Your task to perform on an android device: read, delete, or share a saved page in the chrome app Image 0: 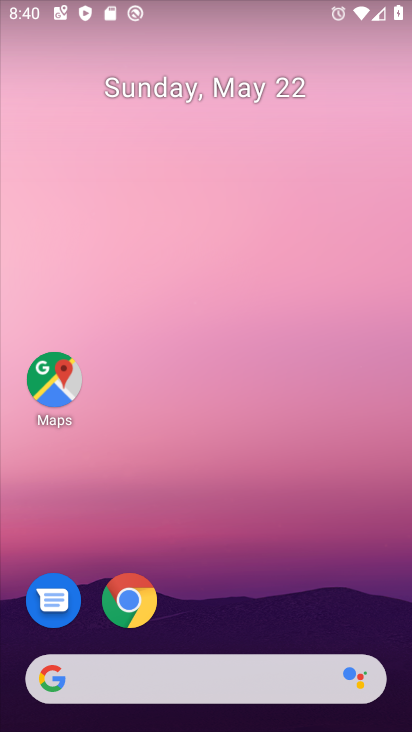
Step 0: drag from (266, 588) to (299, 104)
Your task to perform on an android device: read, delete, or share a saved page in the chrome app Image 1: 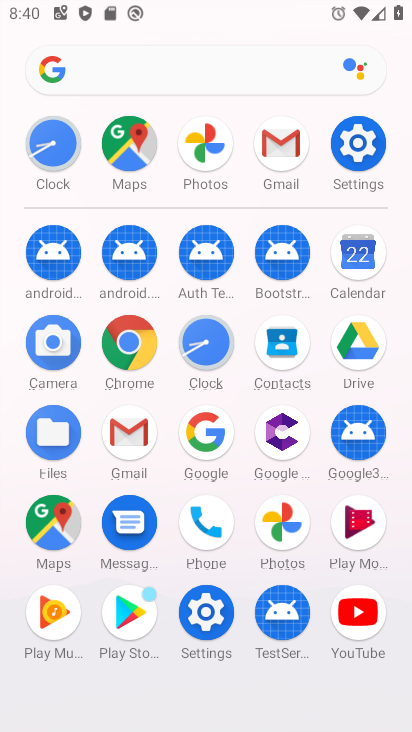
Step 1: click (147, 366)
Your task to perform on an android device: read, delete, or share a saved page in the chrome app Image 2: 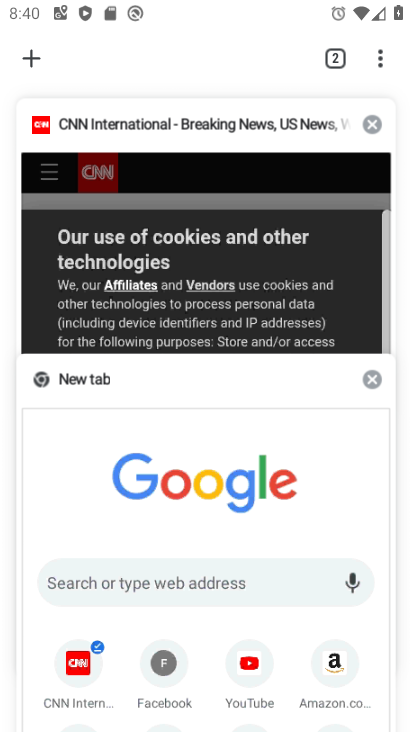
Step 2: click (235, 462)
Your task to perform on an android device: read, delete, or share a saved page in the chrome app Image 3: 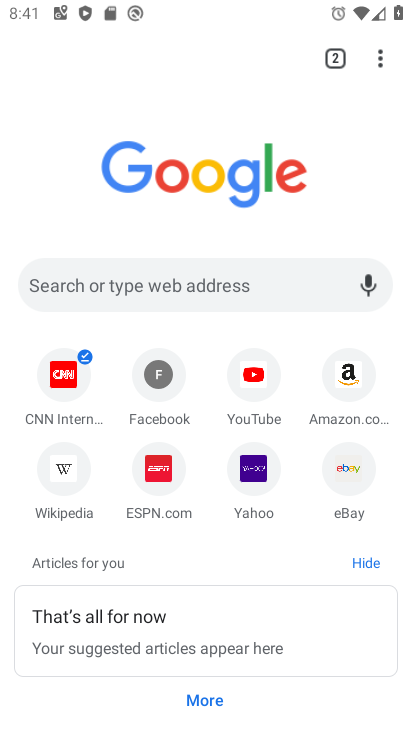
Step 3: click (388, 61)
Your task to perform on an android device: read, delete, or share a saved page in the chrome app Image 4: 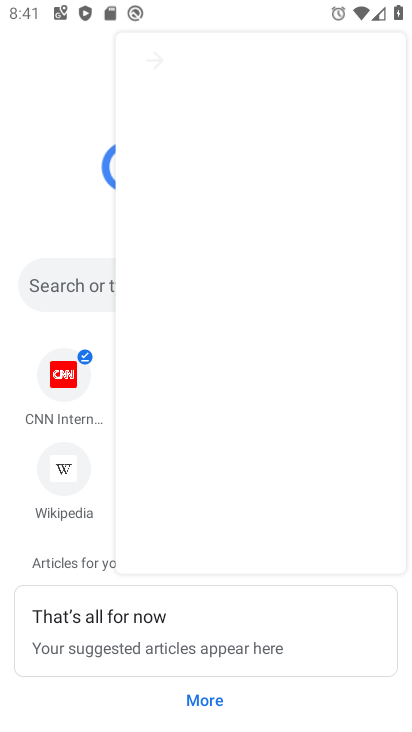
Step 4: click (388, 61)
Your task to perform on an android device: read, delete, or share a saved page in the chrome app Image 5: 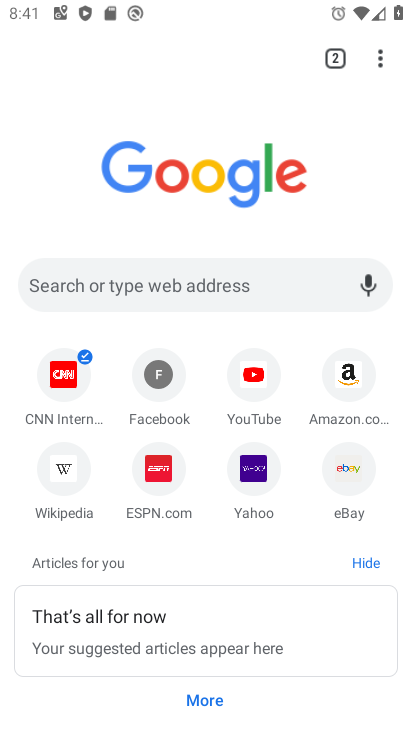
Step 5: click (382, 71)
Your task to perform on an android device: read, delete, or share a saved page in the chrome app Image 6: 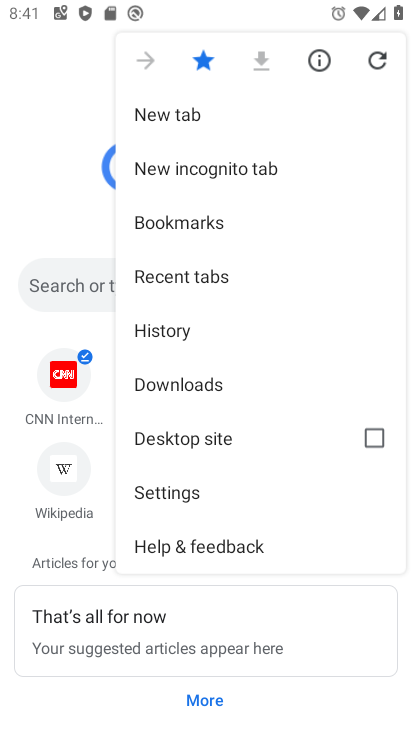
Step 6: click (196, 392)
Your task to perform on an android device: read, delete, or share a saved page in the chrome app Image 7: 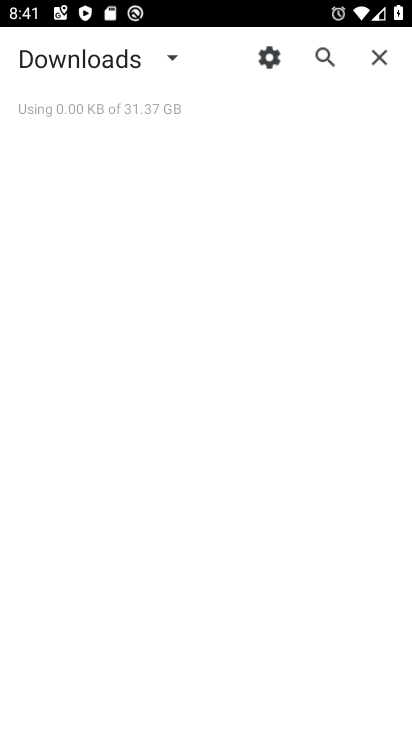
Step 7: click (168, 66)
Your task to perform on an android device: read, delete, or share a saved page in the chrome app Image 8: 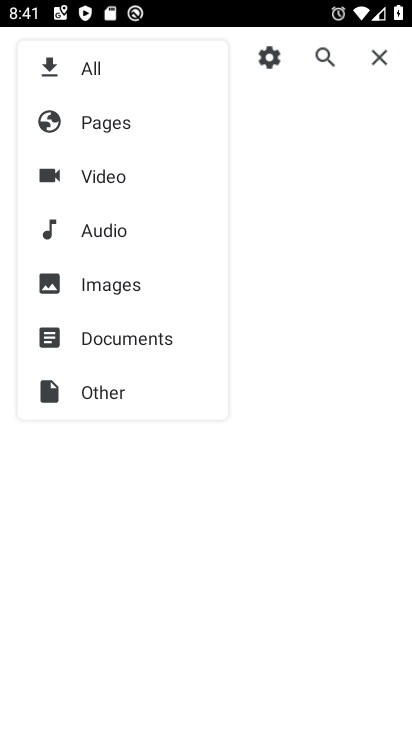
Step 8: click (117, 123)
Your task to perform on an android device: read, delete, or share a saved page in the chrome app Image 9: 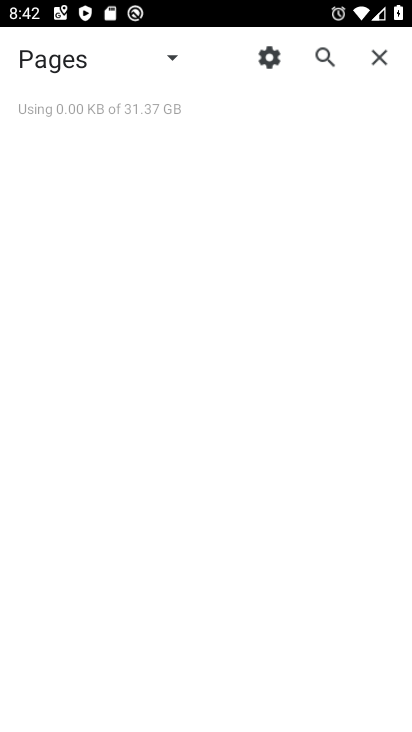
Step 9: task complete